Your task to perform on an android device: set the stopwatch Image 0: 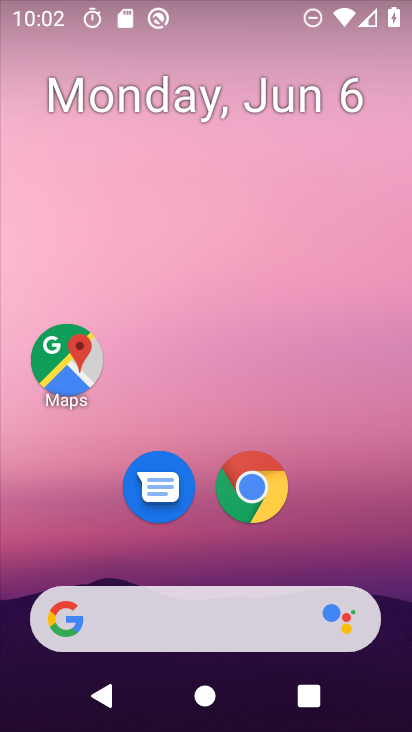
Step 0: drag from (395, 603) to (323, 84)
Your task to perform on an android device: set the stopwatch Image 1: 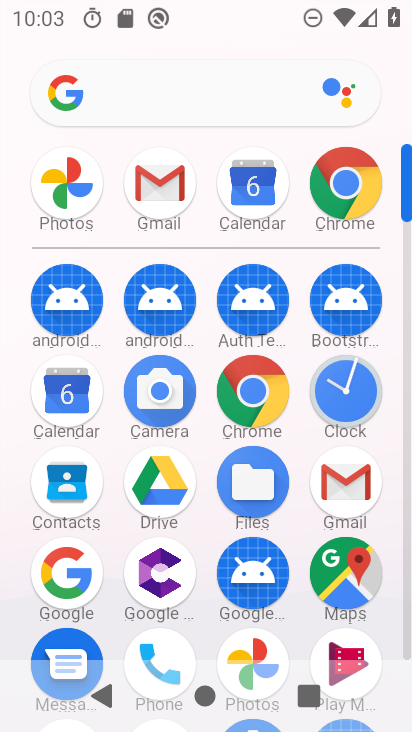
Step 1: click (361, 391)
Your task to perform on an android device: set the stopwatch Image 2: 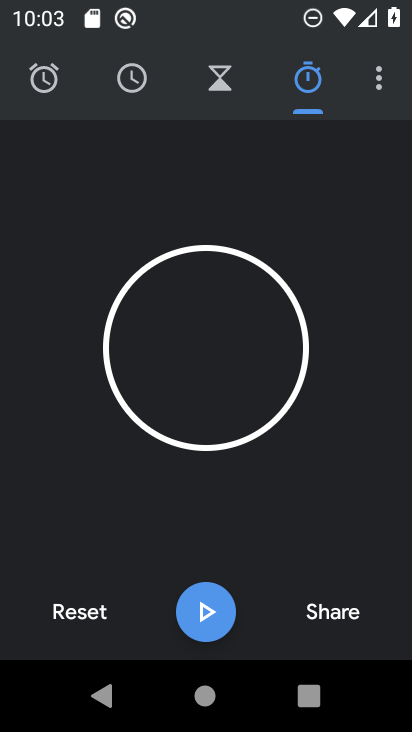
Step 2: task complete